Your task to perform on an android device: turn off location Image 0: 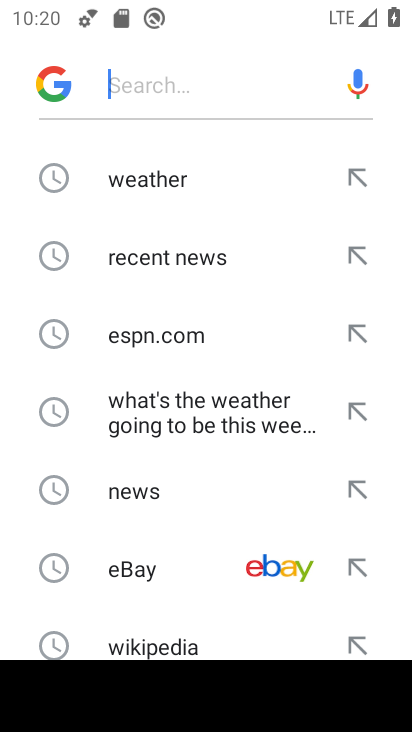
Step 0: press home button
Your task to perform on an android device: turn off location Image 1: 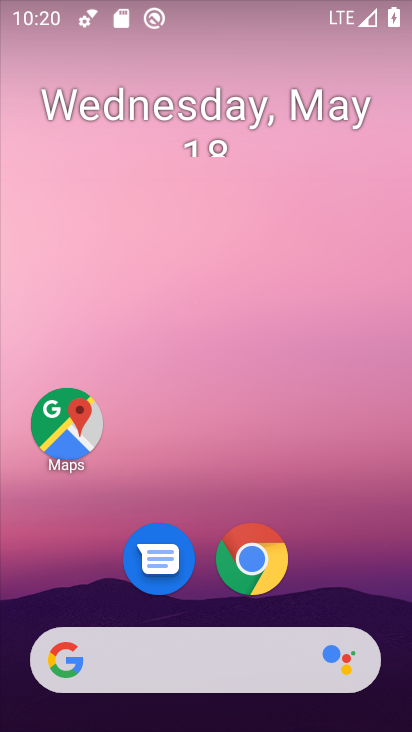
Step 1: drag from (219, 600) to (291, 13)
Your task to perform on an android device: turn off location Image 2: 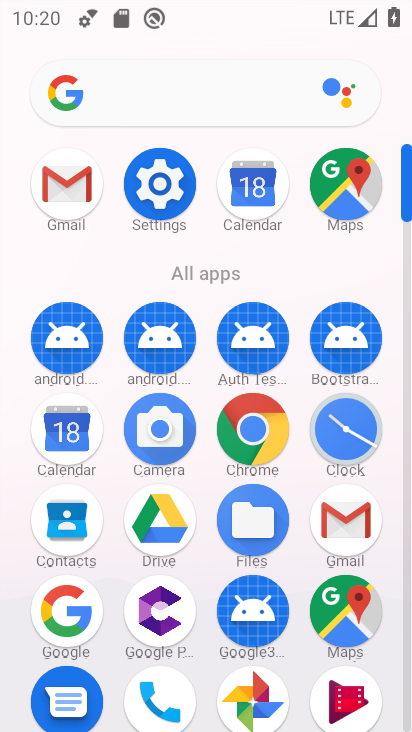
Step 2: click (168, 195)
Your task to perform on an android device: turn off location Image 3: 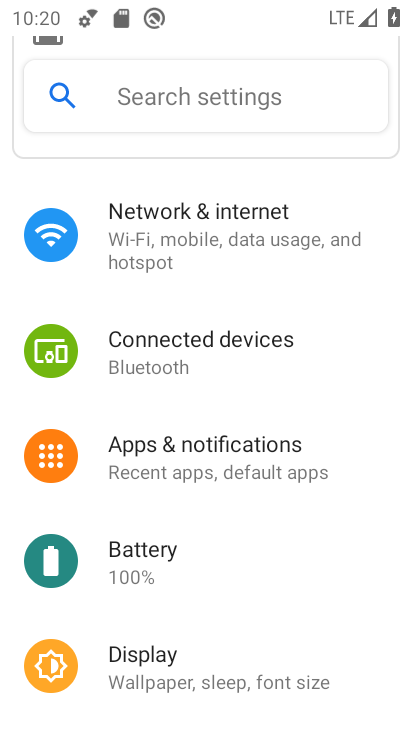
Step 3: drag from (201, 562) to (259, 164)
Your task to perform on an android device: turn off location Image 4: 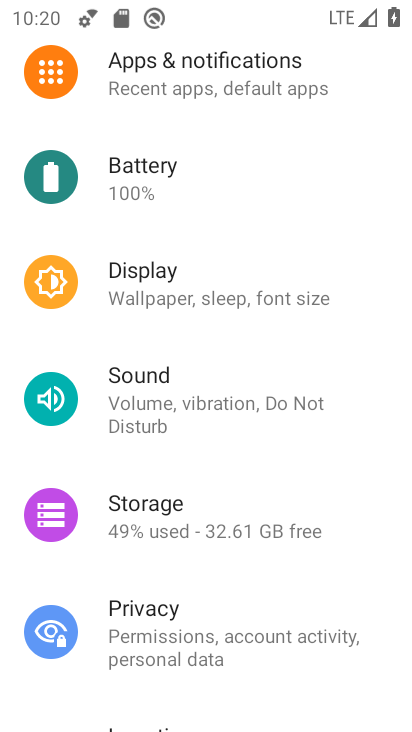
Step 4: drag from (197, 576) to (235, 298)
Your task to perform on an android device: turn off location Image 5: 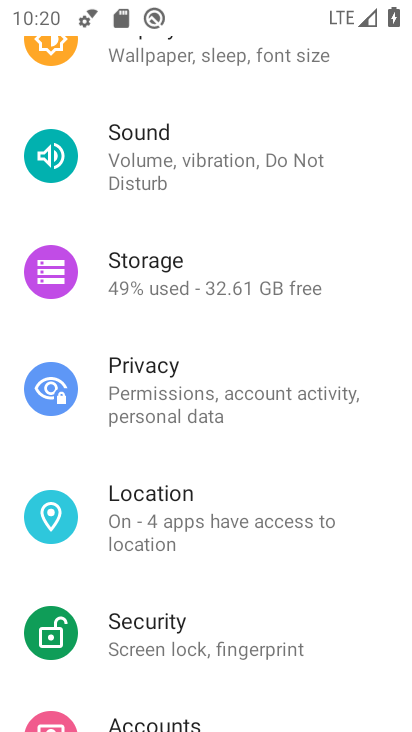
Step 5: click (195, 539)
Your task to perform on an android device: turn off location Image 6: 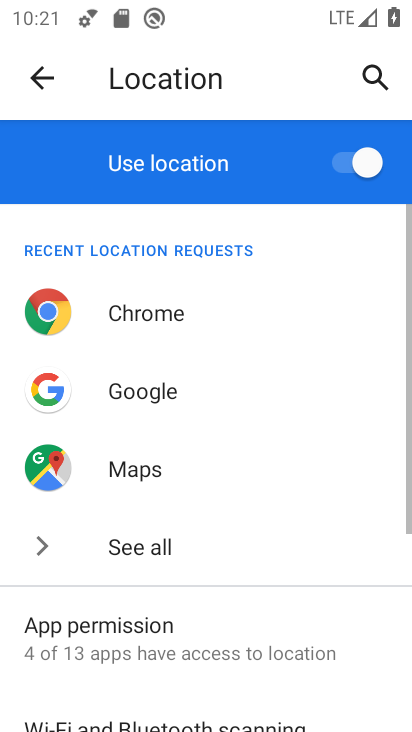
Step 6: drag from (173, 572) to (203, 293)
Your task to perform on an android device: turn off location Image 7: 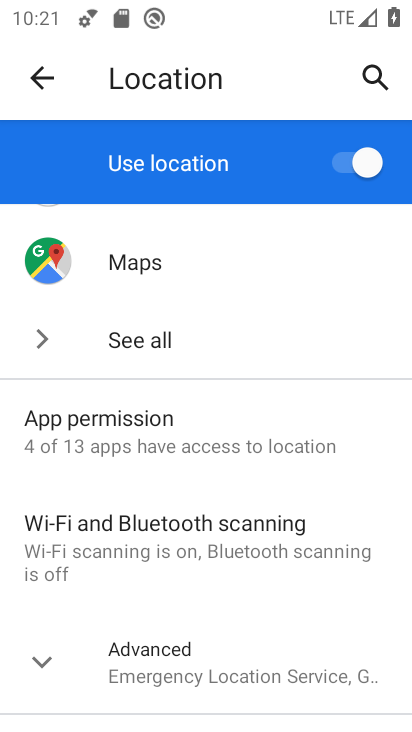
Step 7: click (344, 154)
Your task to perform on an android device: turn off location Image 8: 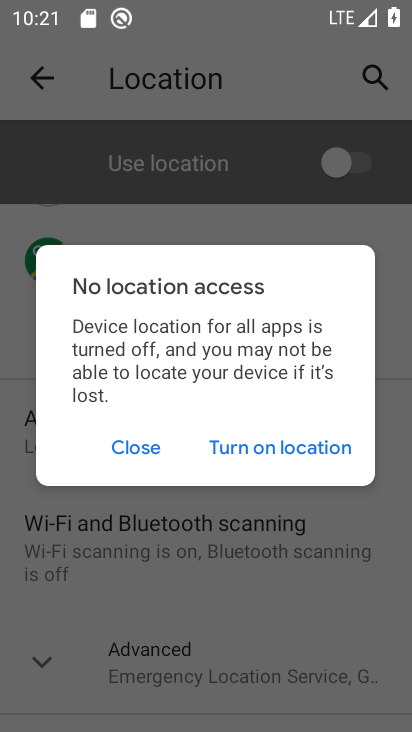
Step 8: click (139, 455)
Your task to perform on an android device: turn off location Image 9: 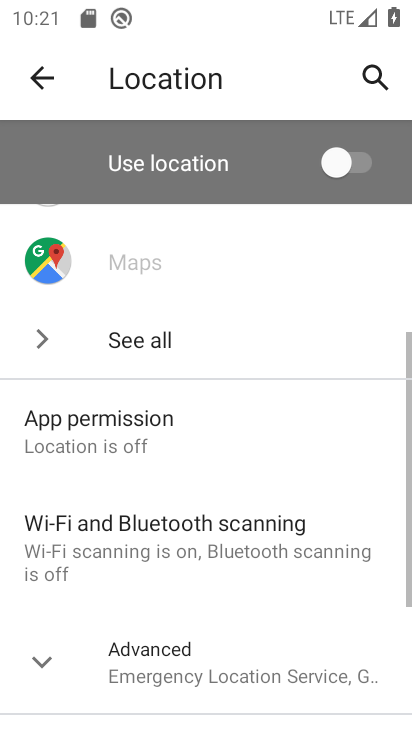
Step 9: task complete